Your task to perform on an android device: set default search engine in the chrome app Image 0: 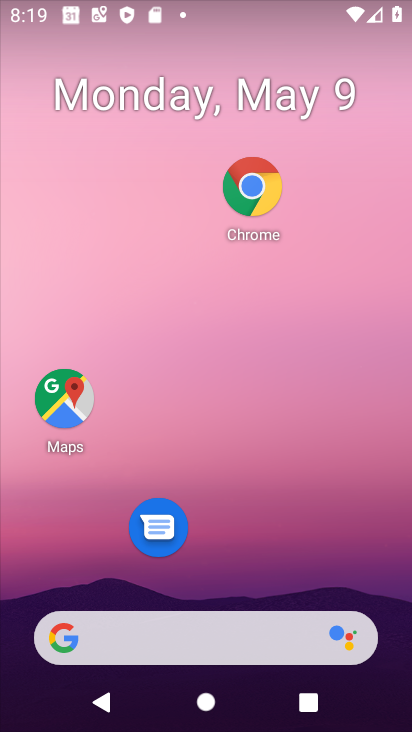
Step 0: click (255, 181)
Your task to perform on an android device: set default search engine in the chrome app Image 1: 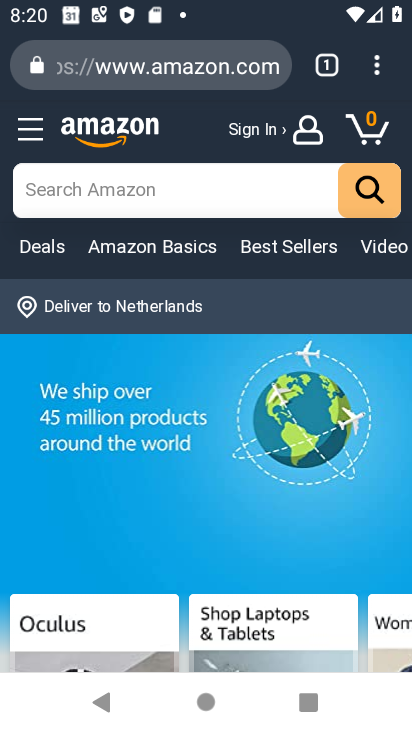
Step 1: click (386, 58)
Your task to perform on an android device: set default search engine in the chrome app Image 2: 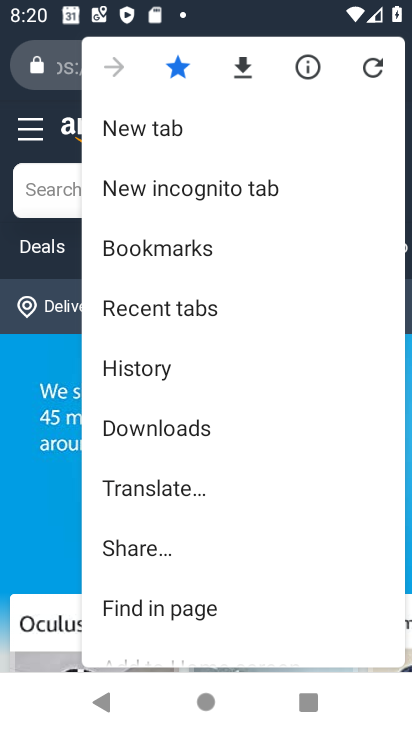
Step 2: drag from (215, 605) to (223, 123)
Your task to perform on an android device: set default search engine in the chrome app Image 3: 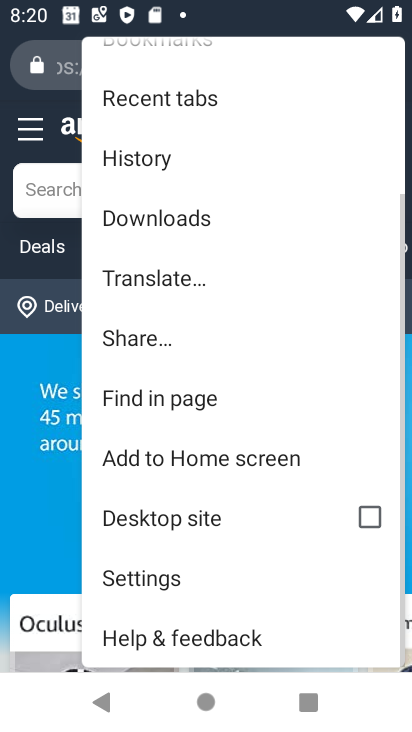
Step 3: click (187, 573)
Your task to perform on an android device: set default search engine in the chrome app Image 4: 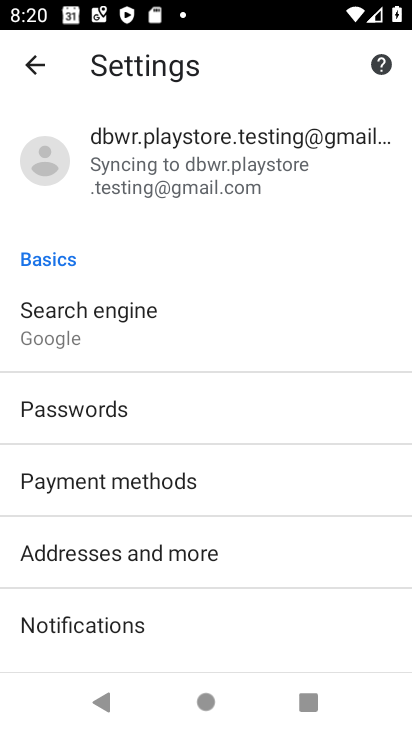
Step 4: click (111, 326)
Your task to perform on an android device: set default search engine in the chrome app Image 5: 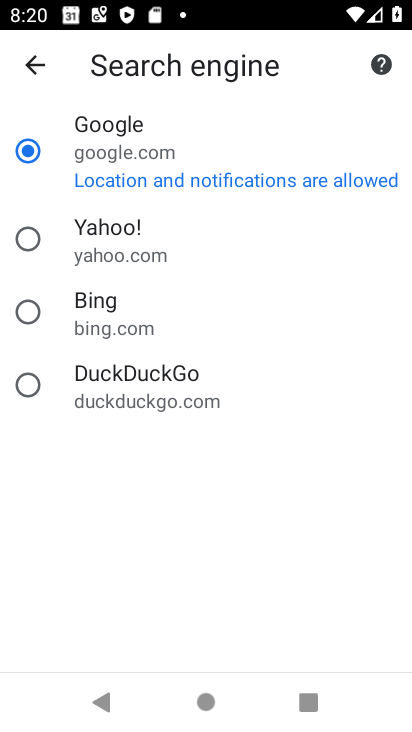
Step 5: click (27, 310)
Your task to perform on an android device: set default search engine in the chrome app Image 6: 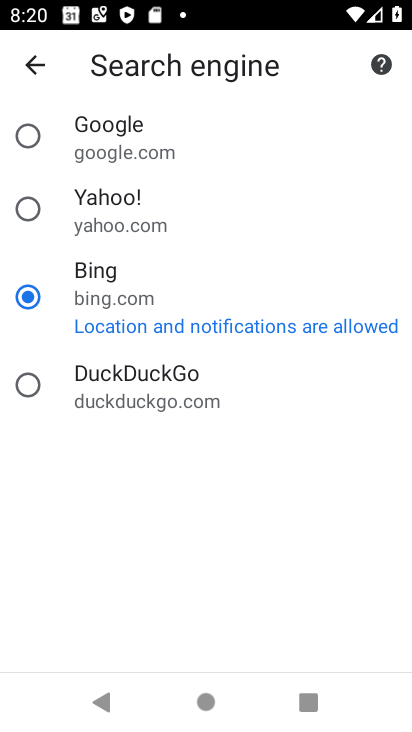
Step 6: task complete